Your task to perform on an android device: Open Google Maps and go to "Timeline" Image 0: 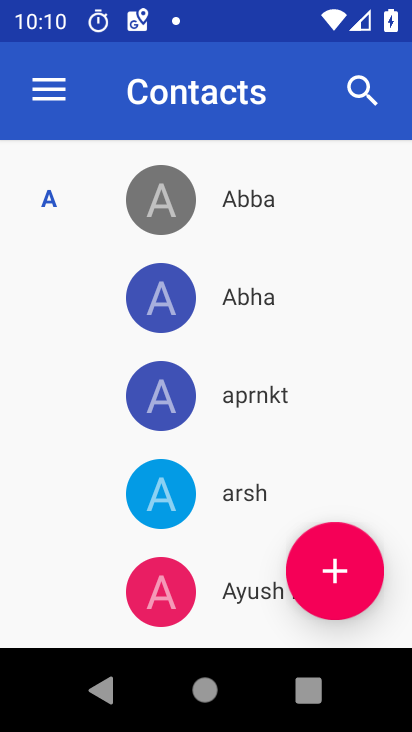
Step 0: press back button
Your task to perform on an android device: Open Google Maps and go to "Timeline" Image 1: 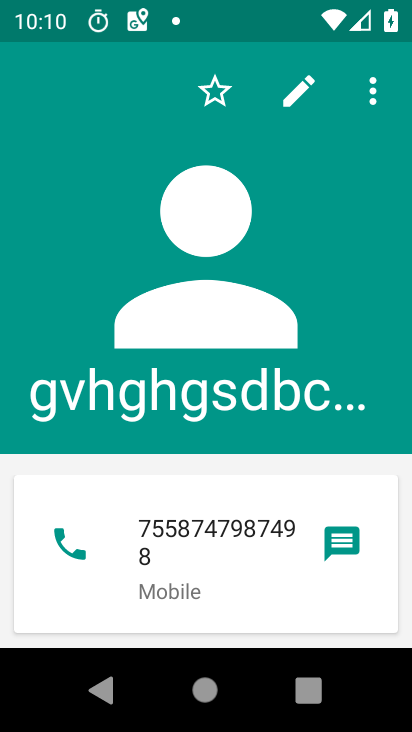
Step 1: press home button
Your task to perform on an android device: Open Google Maps and go to "Timeline" Image 2: 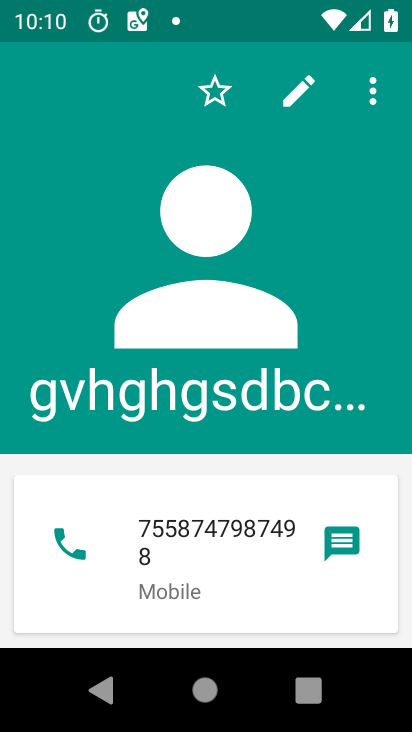
Step 2: press home button
Your task to perform on an android device: Open Google Maps and go to "Timeline" Image 3: 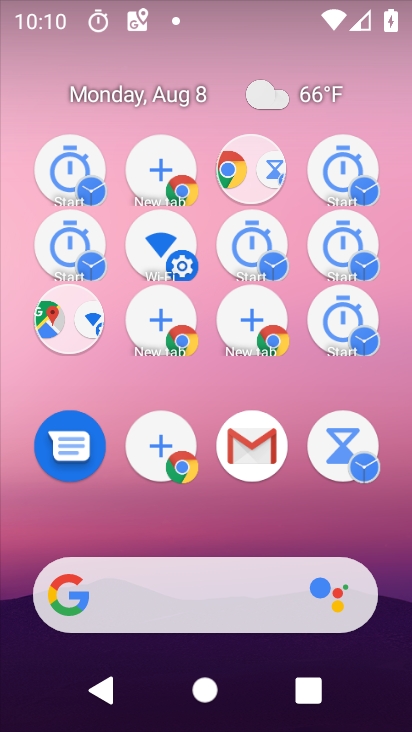
Step 3: drag from (206, 605) to (144, 160)
Your task to perform on an android device: Open Google Maps and go to "Timeline" Image 4: 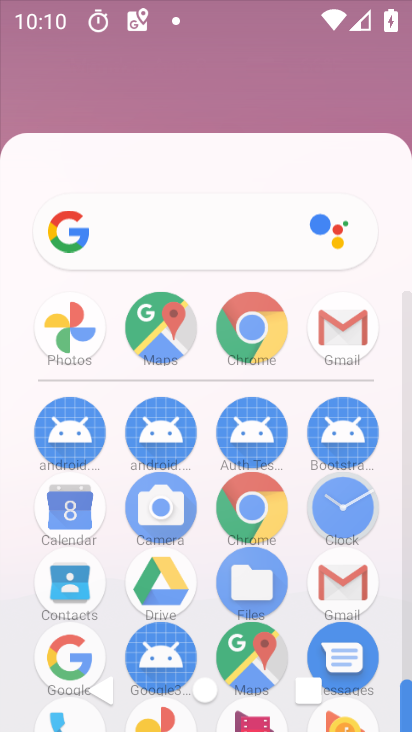
Step 4: drag from (263, 489) to (191, 229)
Your task to perform on an android device: Open Google Maps and go to "Timeline" Image 5: 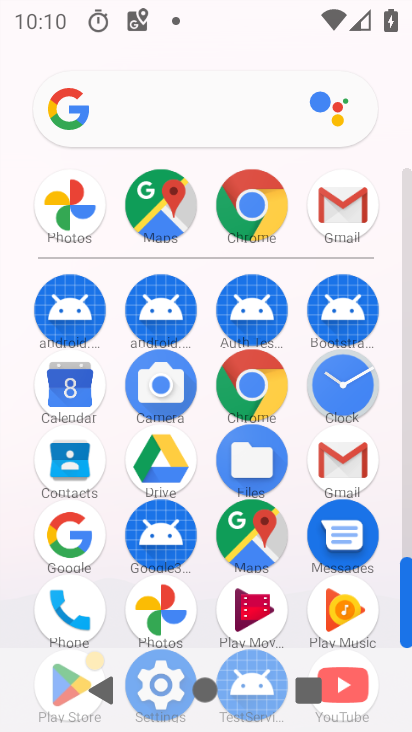
Step 5: click (246, 531)
Your task to perform on an android device: Open Google Maps and go to "Timeline" Image 6: 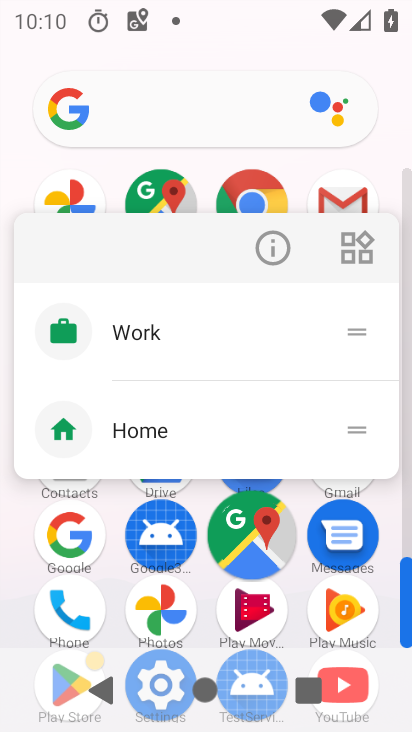
Step 6: click (243, 532)
Your task to perform on an android device: Open Google Maps and go to "Timeline" Image 7: 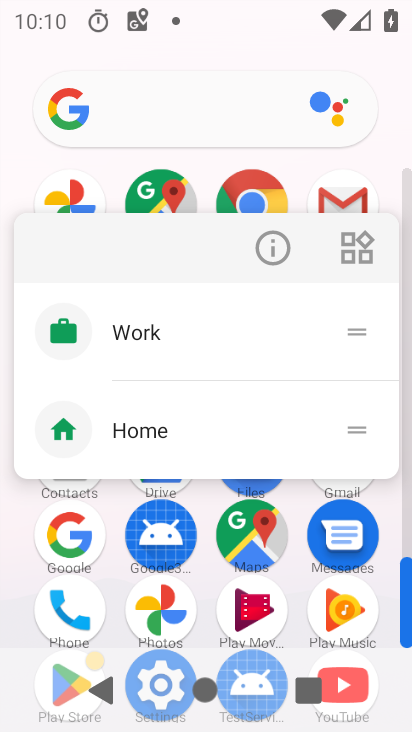
Step 7: click (244, 533)
Your task to perform on an android device: Open Google Maps and go to "Timeline" Image 8: 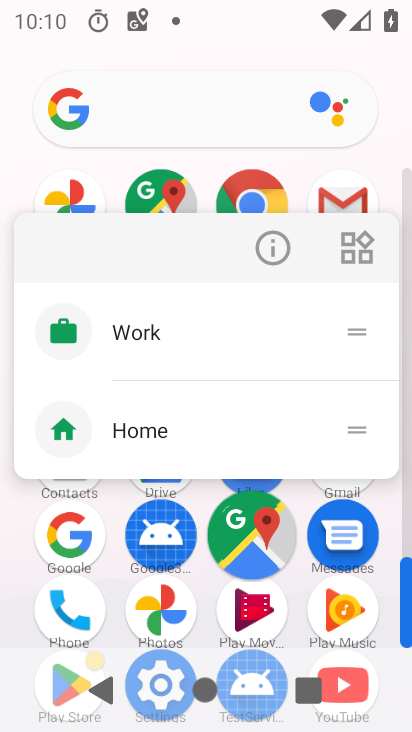
Step 8: click (244, 533)
Your task to perform on an android device: Open Google Maps and go to "Timeline" Image 9: 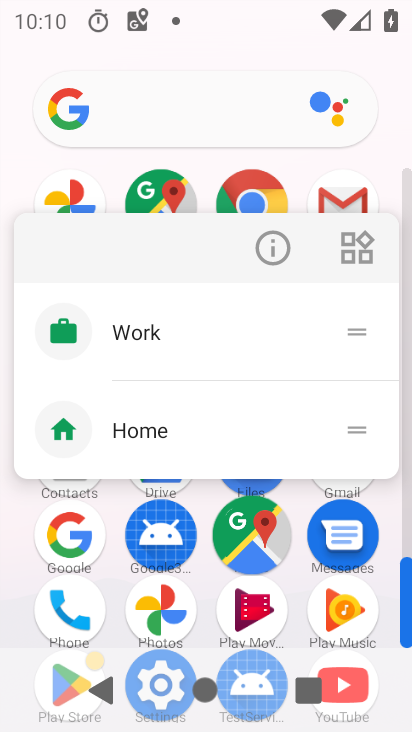
Step 9: click (244, 533)
Your task to perform on an android device: Open Google Maps and go to "Timeline" Image 10: 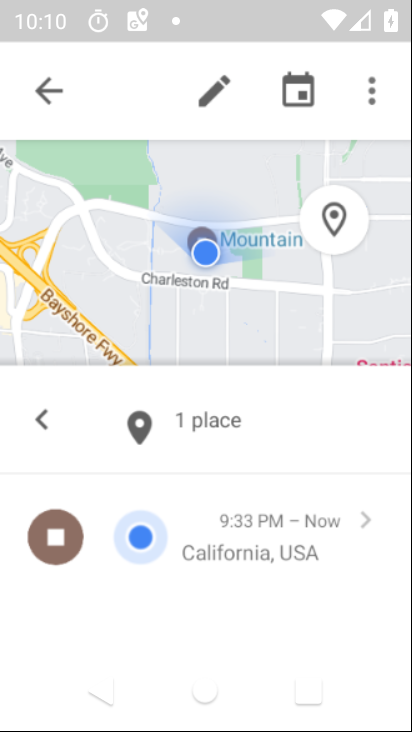
Step 10: click (245, 536)
Your task to perform on an android device: Open Google Maps and go to "Timeline" Image 11: 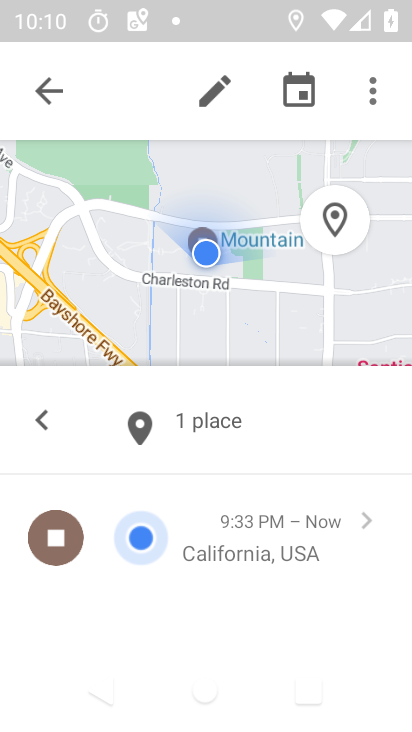
Step 11: click (362, 97)
Your task to perform on an android device: Open Google Maps and go to "Timeline" Image 12: 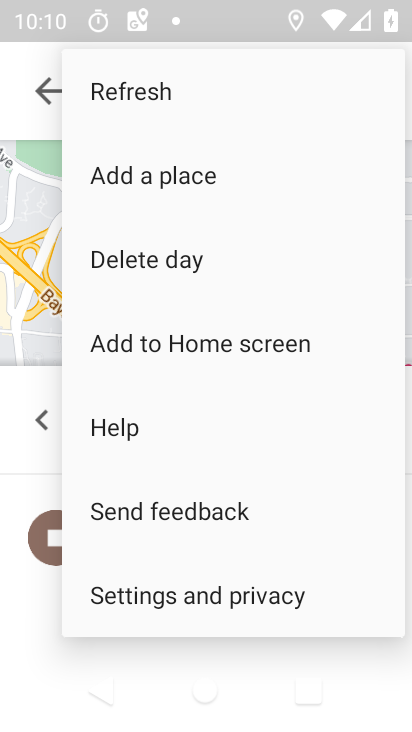
Step 12: click (55, 229)
Your task to perform on an android device: Open Google Maps and go to "Timeline" Image 13: 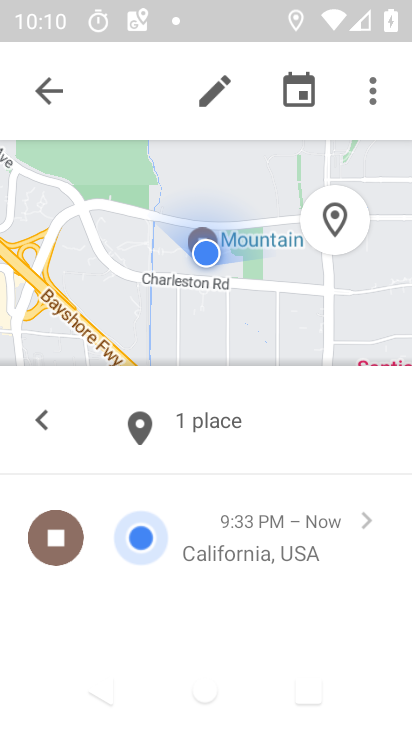
Step 13: click (56, 226)
Your task to perform on an android device: Open Google Maps and go to "Timeline" Image 14: 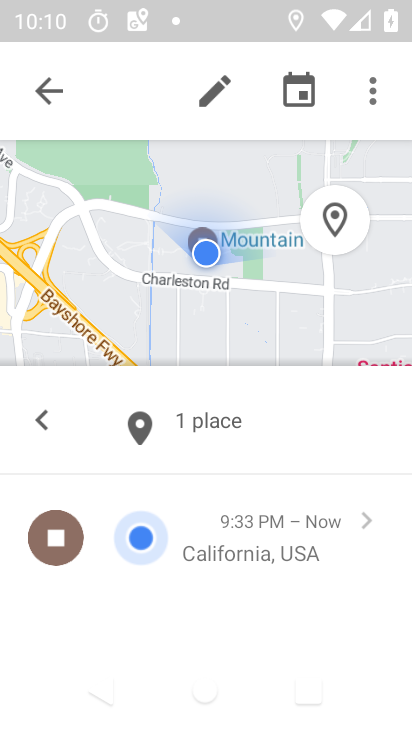
Step 14: click (58, 225)
Your task to perform on an android device: Open Google Maps and go to "Timeline" Image 15: 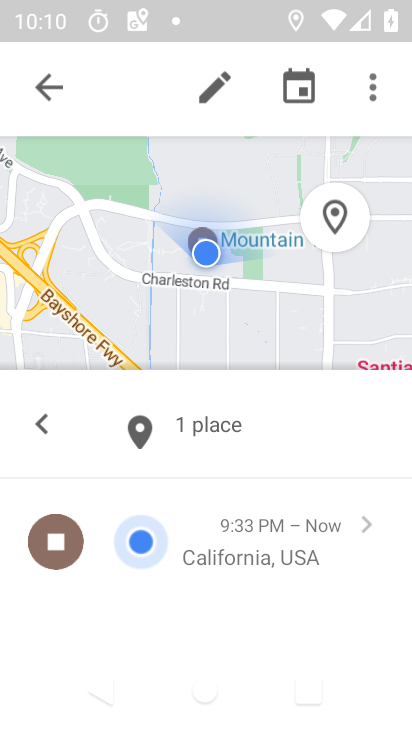
Step 15: click (27, 87)
Your task to perform on an android device: Open Google Maps and go to "Timeline" Image 16: 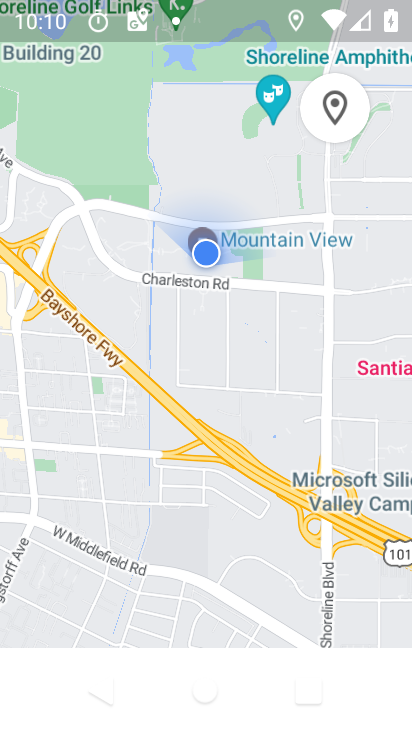
Step 16: click (29, 87)
Your task to perform on an android device: Open Google Maps and go to "Timeline" Image 17: 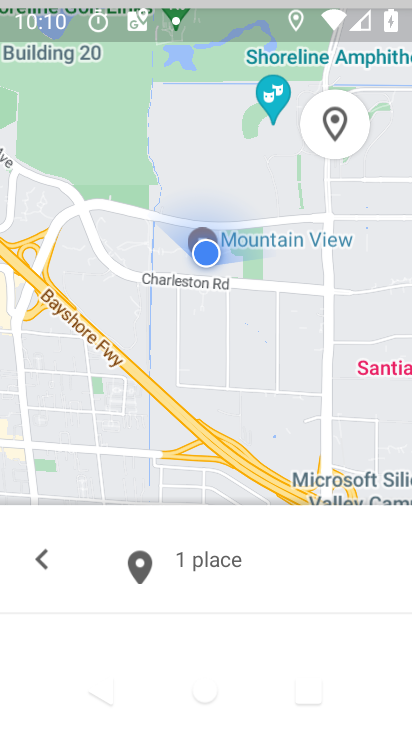
Step 17: click (32, 88)
Your task to perform on an android device: Open Google Maps and go to "Timeline" Image 18: 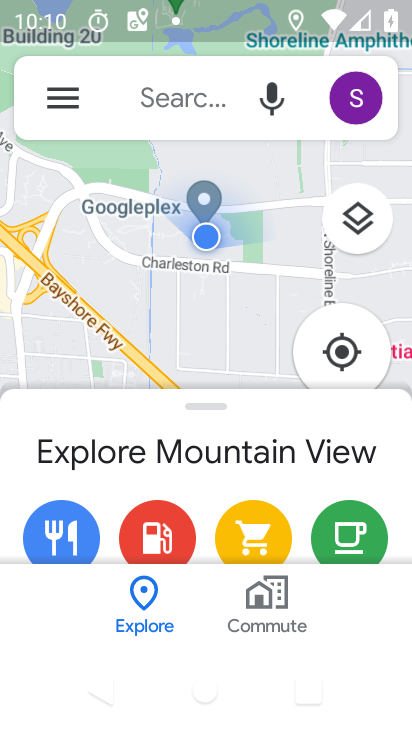
Step 18: click (75, 91)
Your task to perform on an android device: Open Google Maps and go to "Timeline" Image 19: 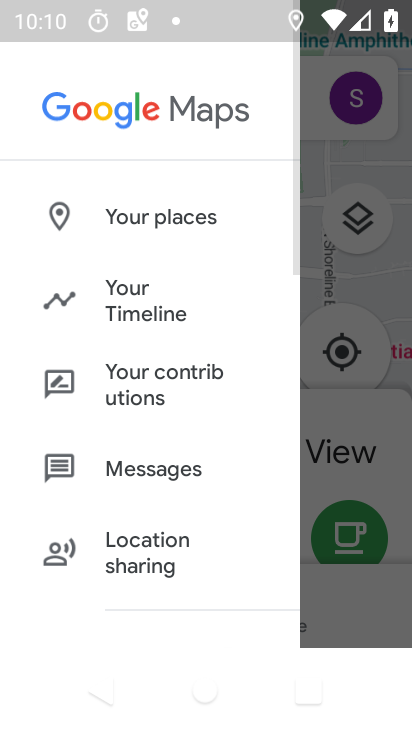
Step 19: click (131, 320)
Your task to perform on an android device: Open Google Maps and go to "Timeline" Image 20: 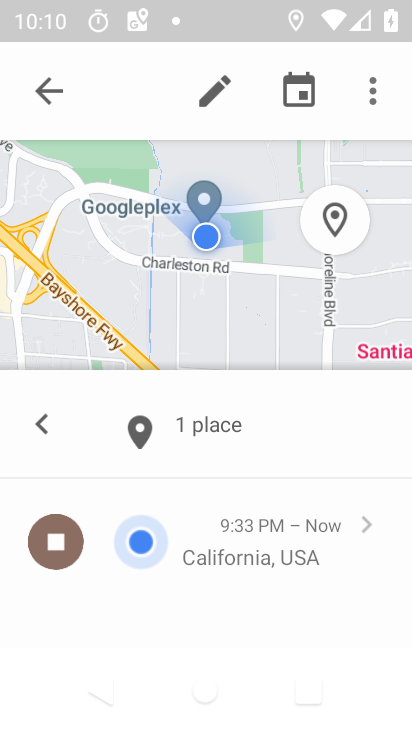
Step 20: click (134, 315)
Your task to perform on an android device: Open Google Maps and go to "Timeline" Image 21: 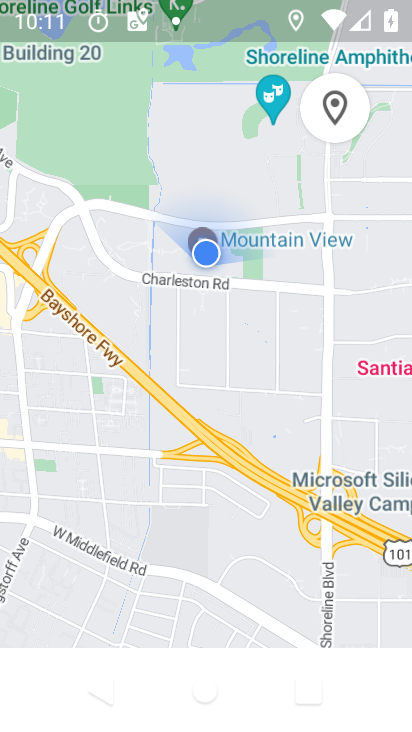
Step 21: task complete